Your task to perform on an android device: toggle improve location accuracy Image 0: 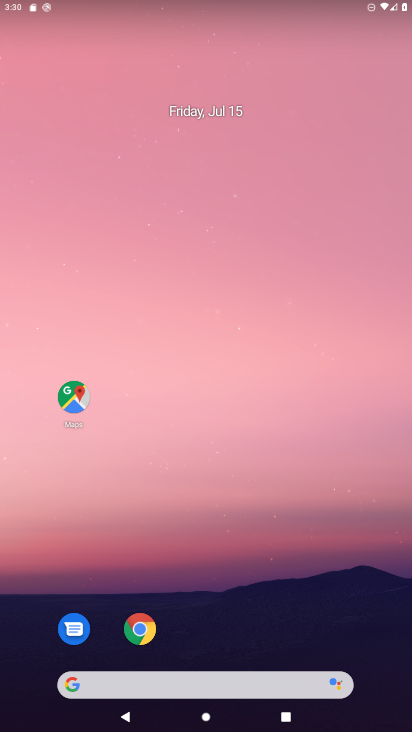
Step 0: drag from (246, 541) to (247, 93)
Your task to perform on an android device: toggle improve location accuracy Image 1: 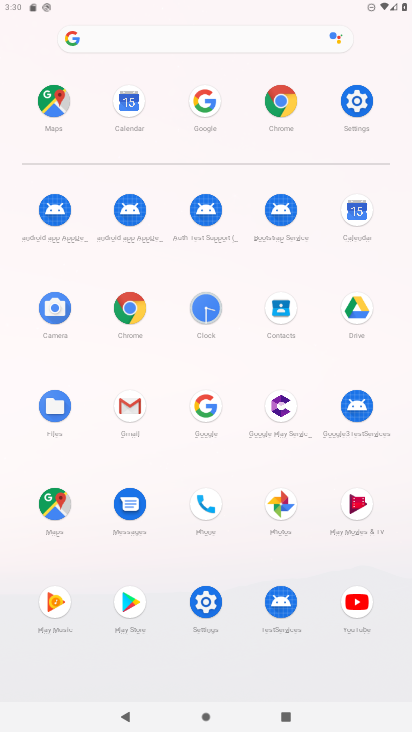
Step 1: click (360, 104)
Your task to perform on an android device: toggle improve location accuracy Image 2: 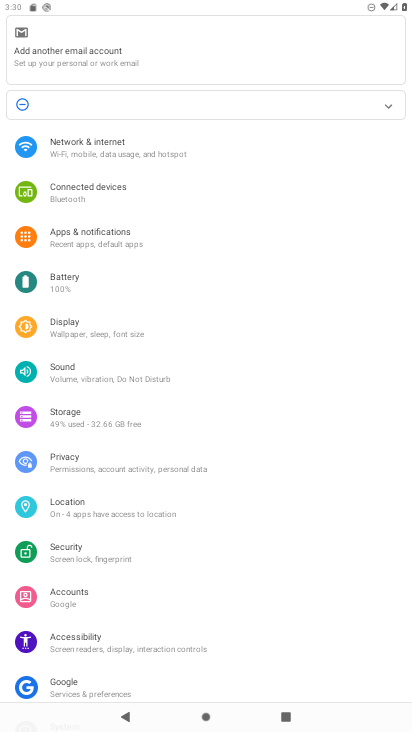
Step 2: click (75, 506)
Your task to perform on an android device: toggle improve location accuracy Image 3: 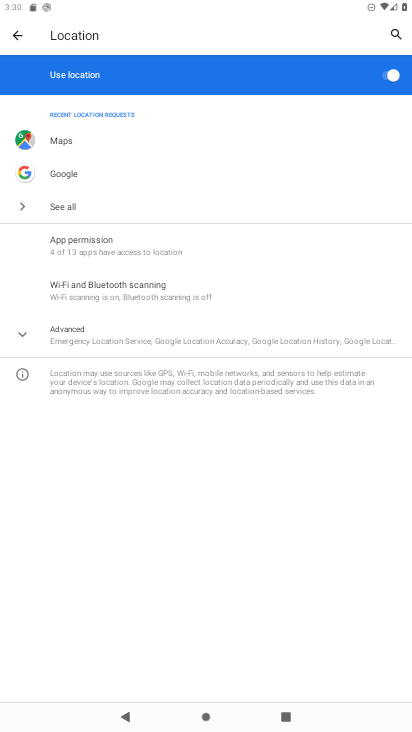
Step 3: click (88, 341)
Your task to perform on an android device: toggle improve location accuracy Image 4: 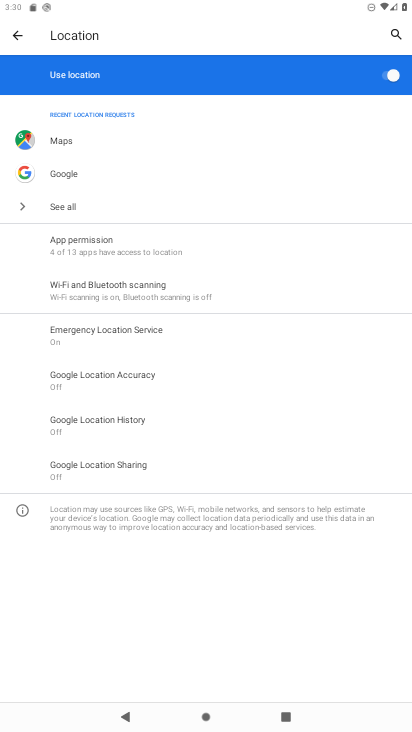
Step 4: click (117, 369)
Your task to perform on an android device: toggle improve location accuracy Image 5: 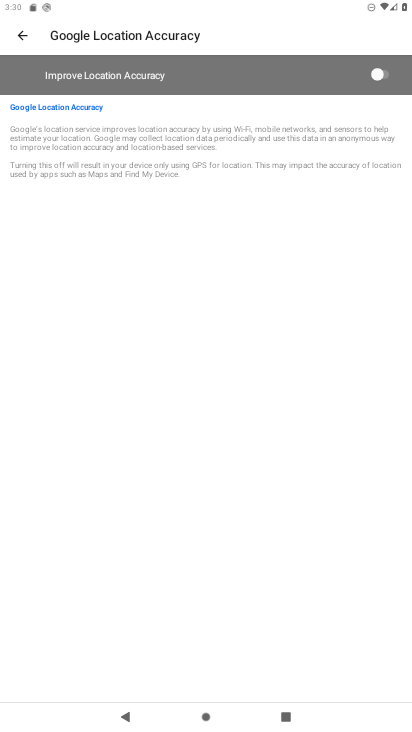
Step 5: click (385, 76)
Your task to perform on an android device: toggle improve location accuracy Image 6: 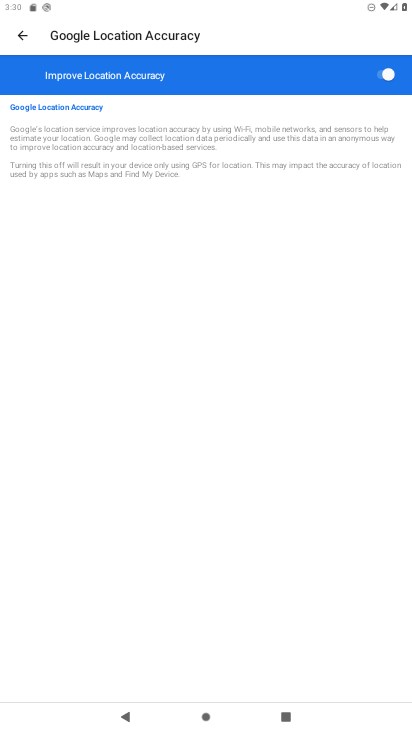
Step 6: task complete